Your task to perform on an android device: Open the Play Movies app and select the watchlist tab. Image 0: 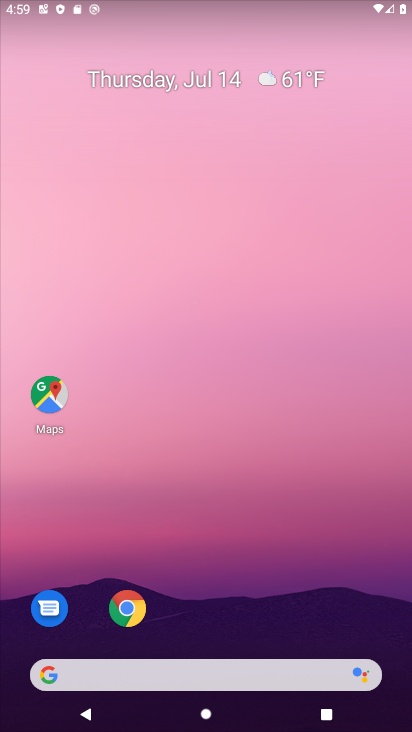
Step 0: drag from (279, 471) to (256, 171)
Your task to perform on an android device: Open the Play Movies app and select the watchlist tab. Image 1: 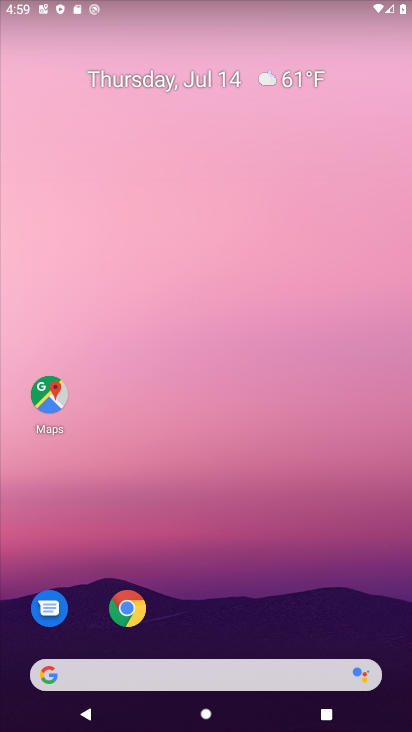
Step 1: drag from (314, 496) to (251, 87)
Your task to perform on an android device: Open the Play Movies app and select the watchlist tab. Image 2: 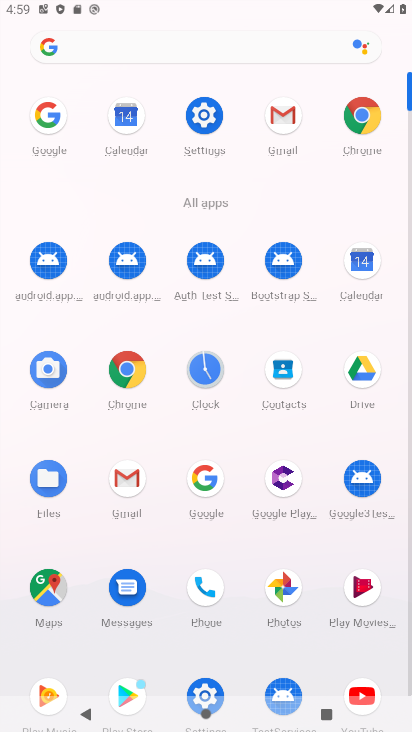
Step 2: click (362, 594)
Your task to perform on an android device: Open the Play Movies app and select the watchlist tab. Image 3: 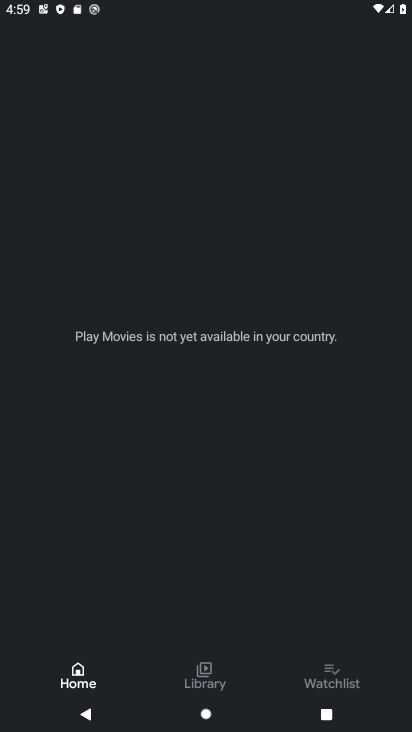
Step 3: click (322, 653)
Your task to perform on an android device: Open the Play Movies app and select the watchlist tab. Image 4: 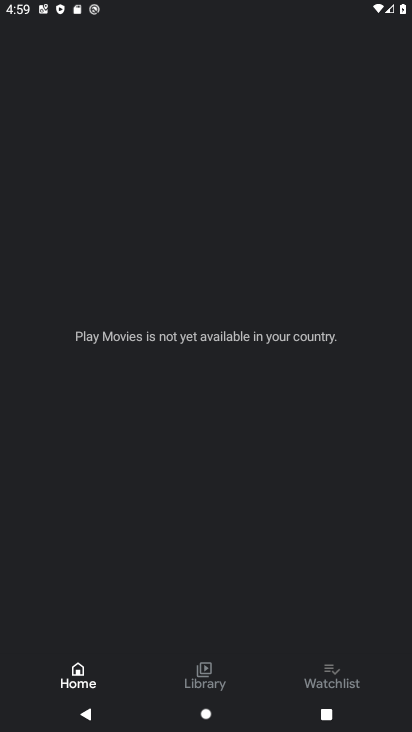
Step 4: click (325, 677)
Your task to perform on an android device: Open the Play Movies app and select the watchlist tab. Image 5: 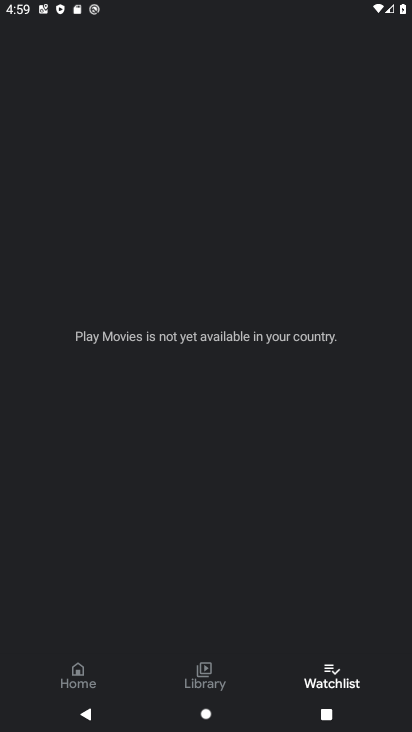
Step 5: task complete